Your task to perform on an android device: open app "Microsoft Outlook" (install if not already installed) Image 0: 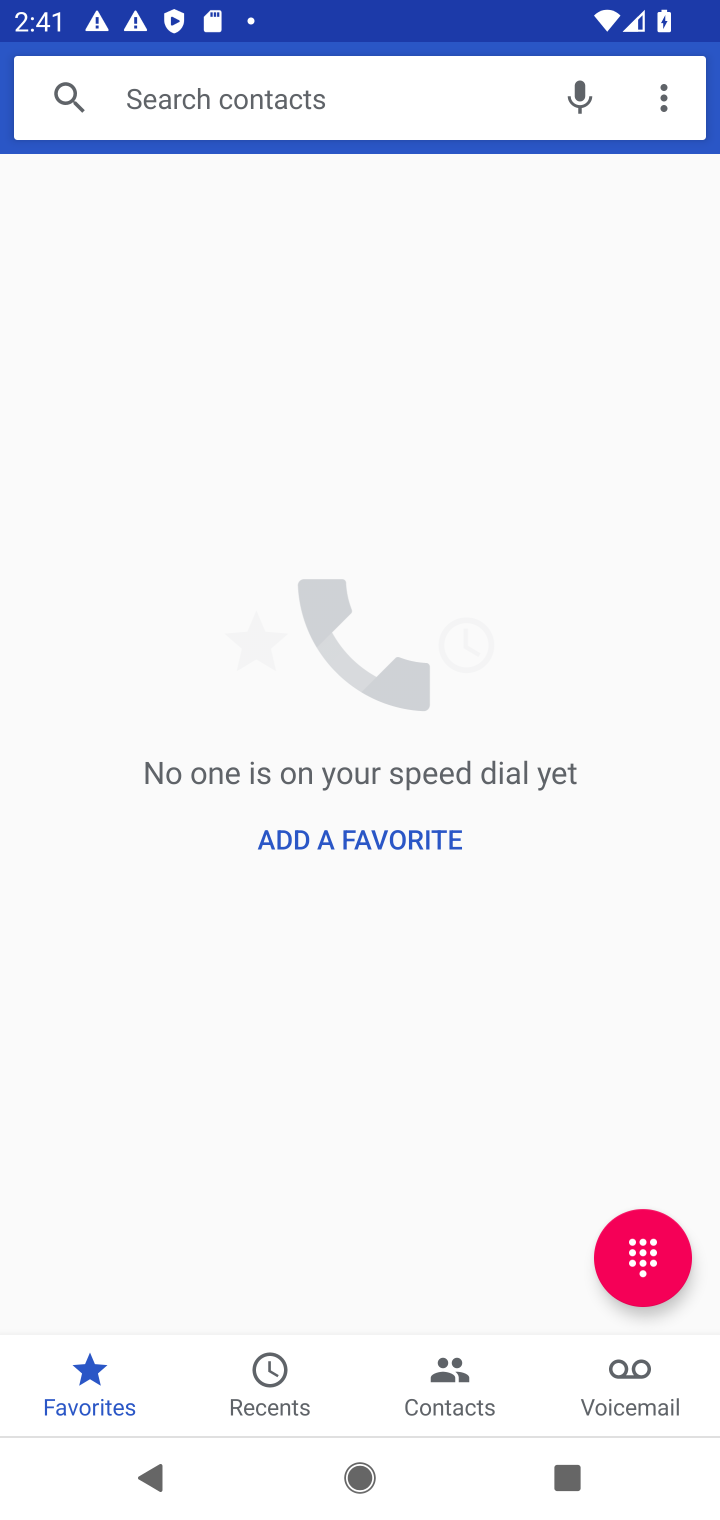
Step 0: press home button
Your task to perform on an android device: open app "Microsoft Outlook" (install if not already installed) Image 1: 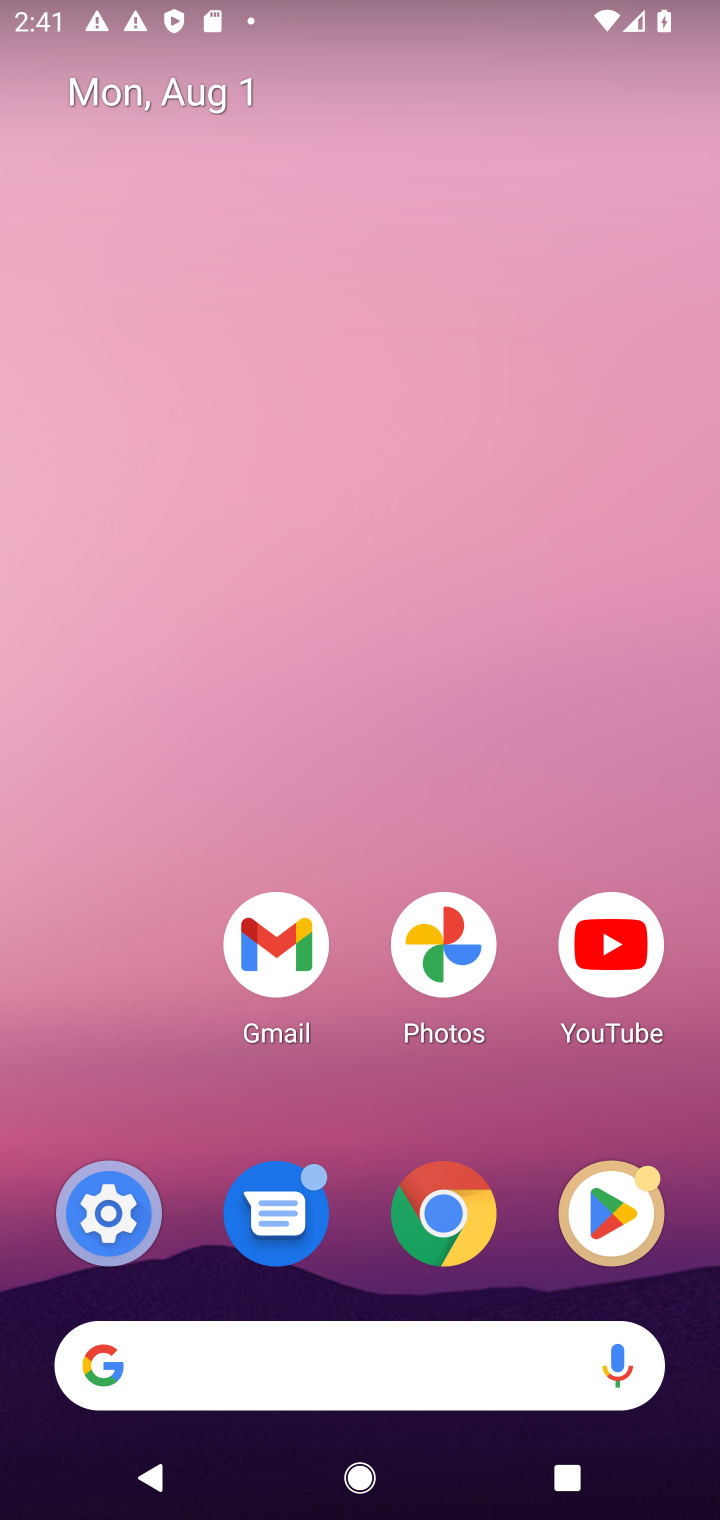
Step 1: drag from (536, 1015) to (605, 13)
Your task to perform on an android device: open app "Microsoft Outlook" (install if not already installed) Image 2: 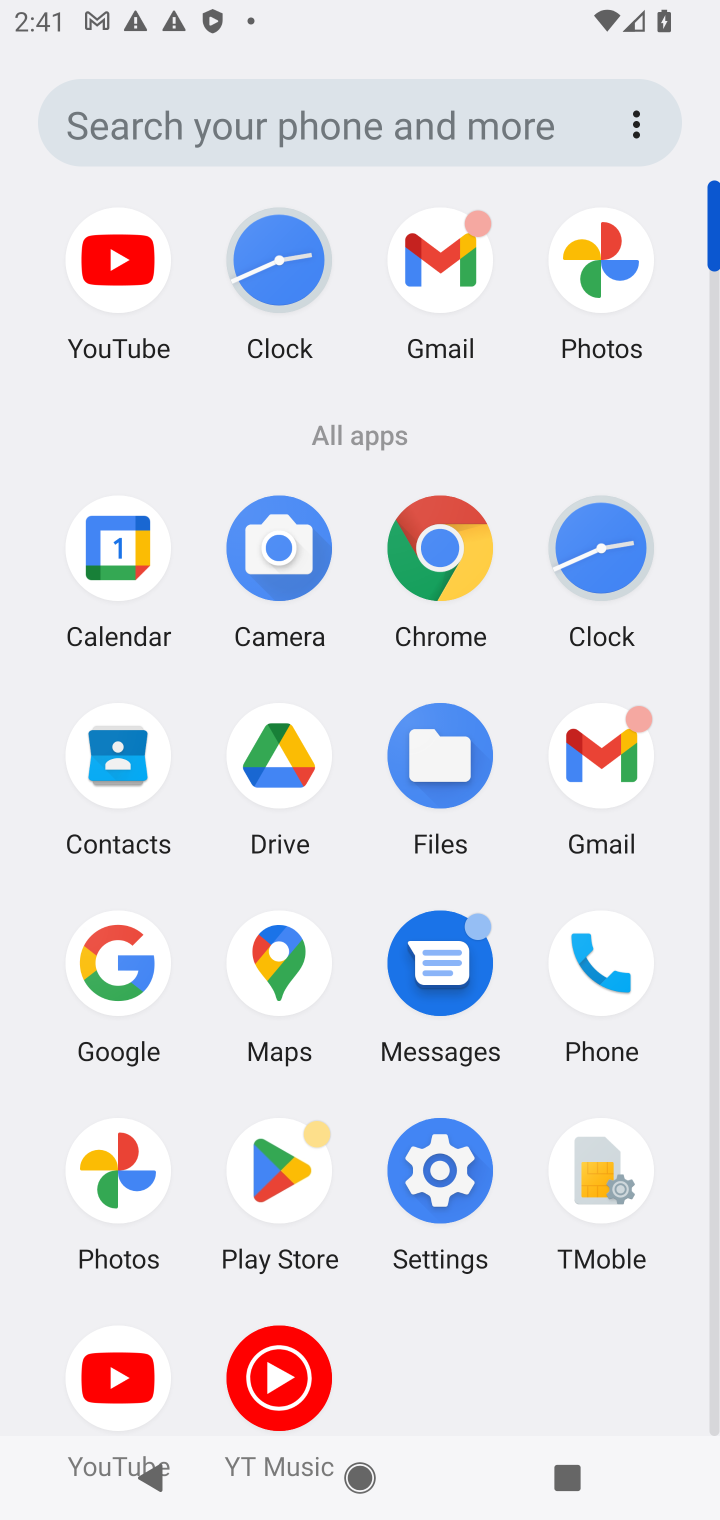
Step 2: click (299, 1149)
Your task to perform on an android device: open app "Microsoft Outlook" (install if not already installed) Image 3: 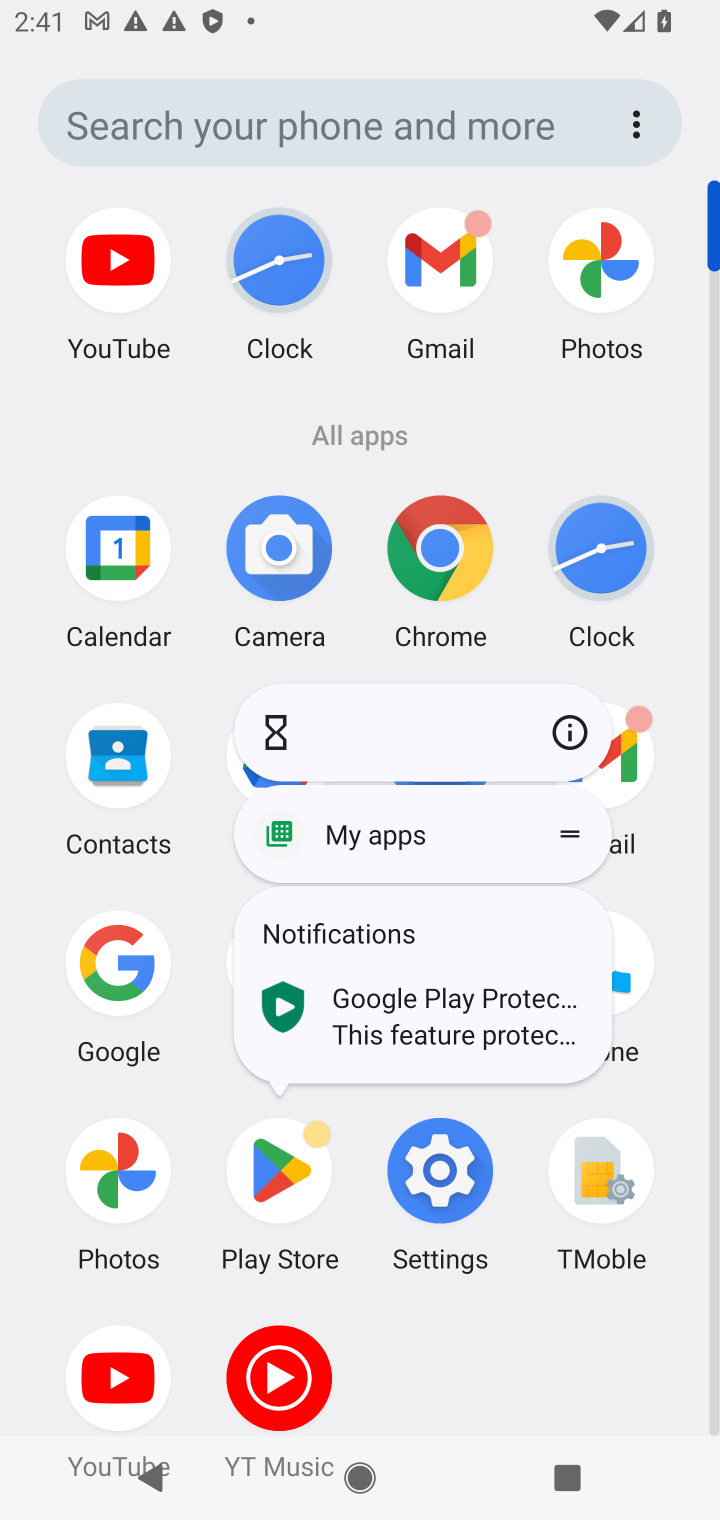
Step 3: click (283, 1155)
Your task to perform on an android device: open app "Microsoft Outlook" (install if not already installed) Image 4: 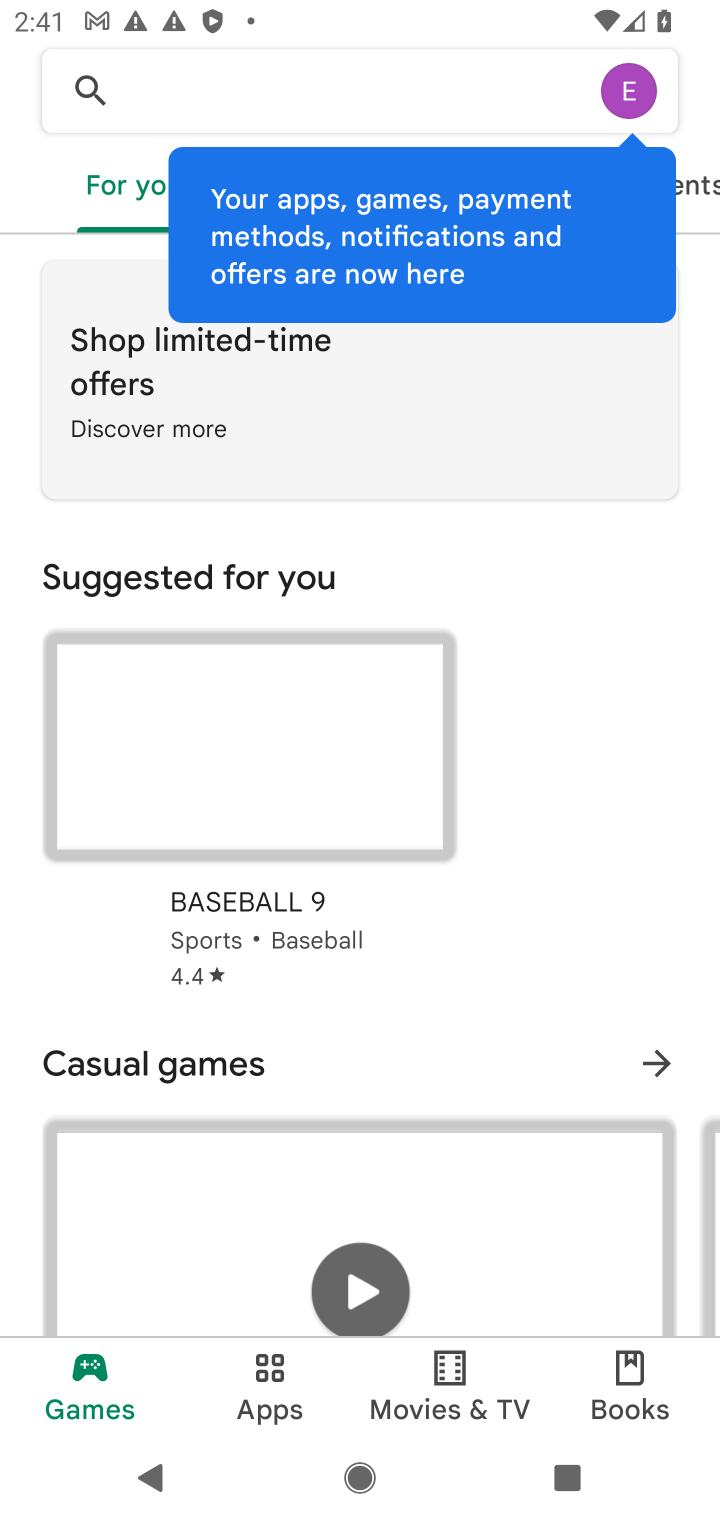
Step 4: click (459, 99)
Your task to perform on an android device: open app "Microsoft Outlook" (install if not already installed) Image 5: 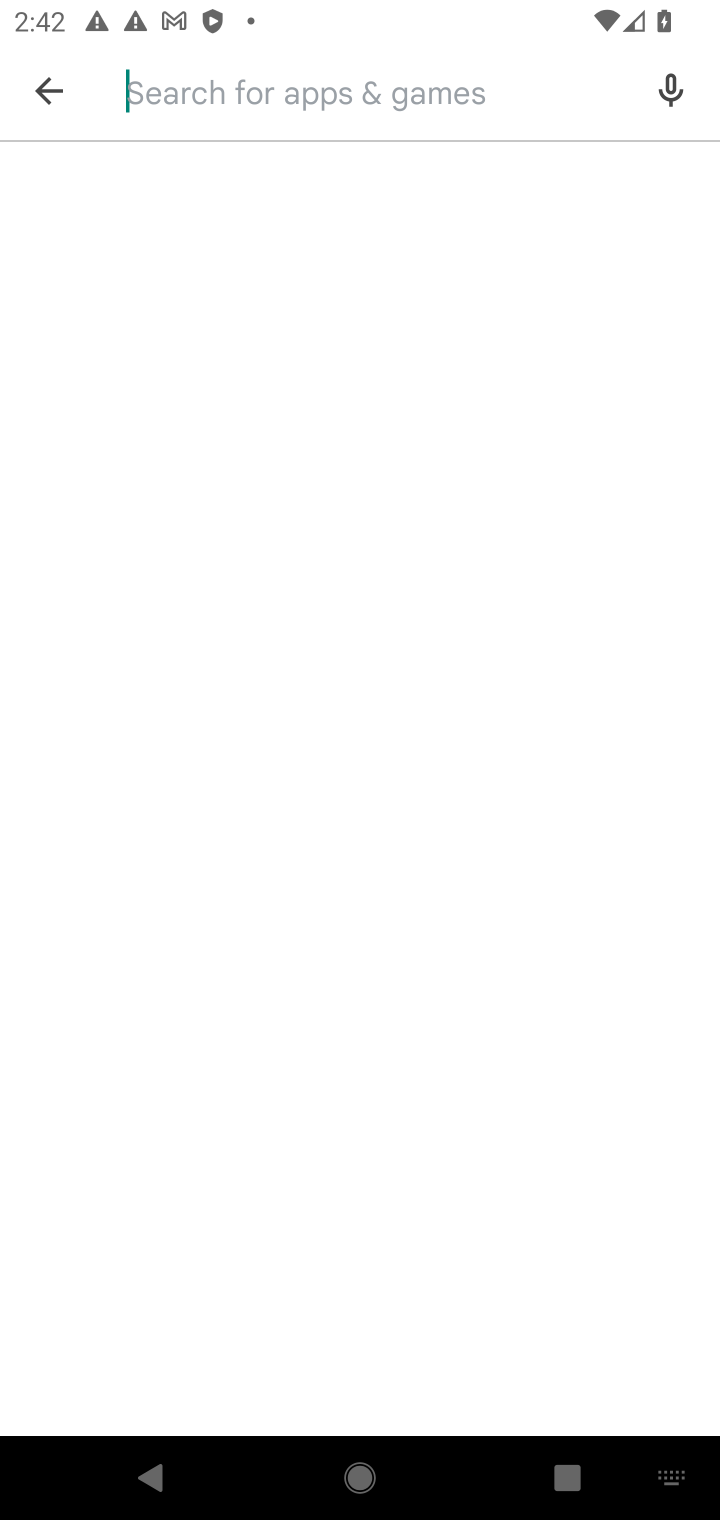
Step 5: type "Microsoft Outlook"
Your task to perform on an android device: open app "Microsoft Outlook" (install if not already installed) Image 6: 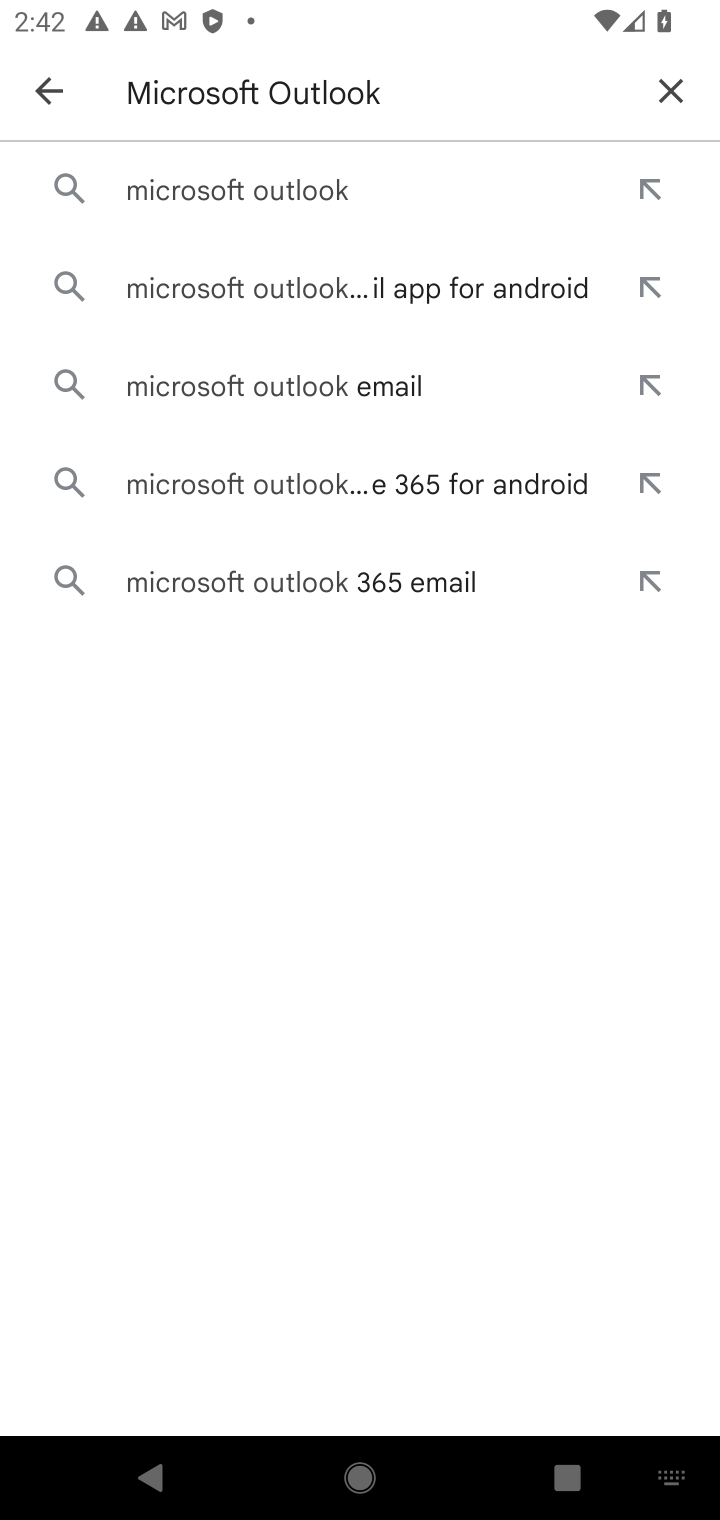
Step 6: press enter
Your task to perform on an android device: open app "Microsoft Outlook" (install if not already installed) Image 7: 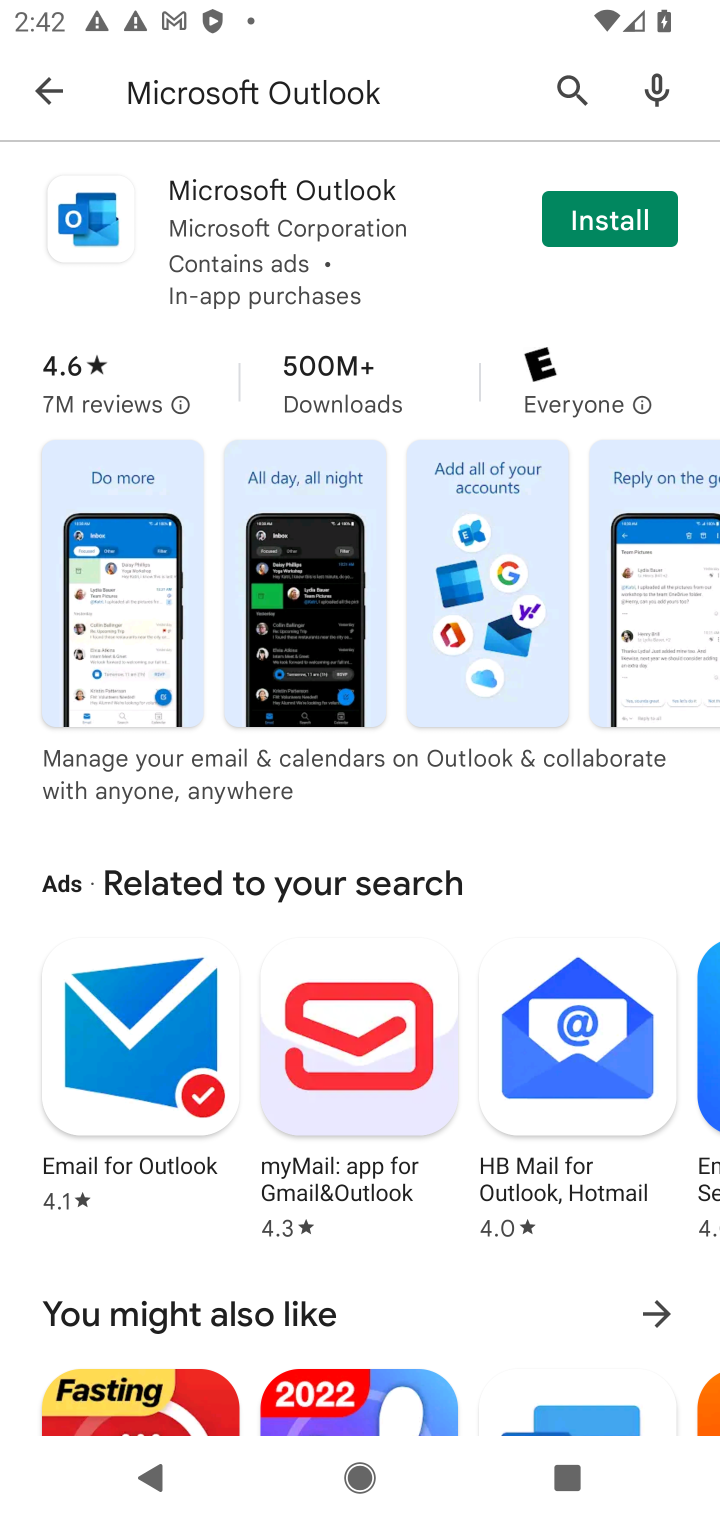
Step 7: click (652, 209)
Your task to perform on an android device: open app "Microsoft Outlook" (install if not already installed) Image 8: 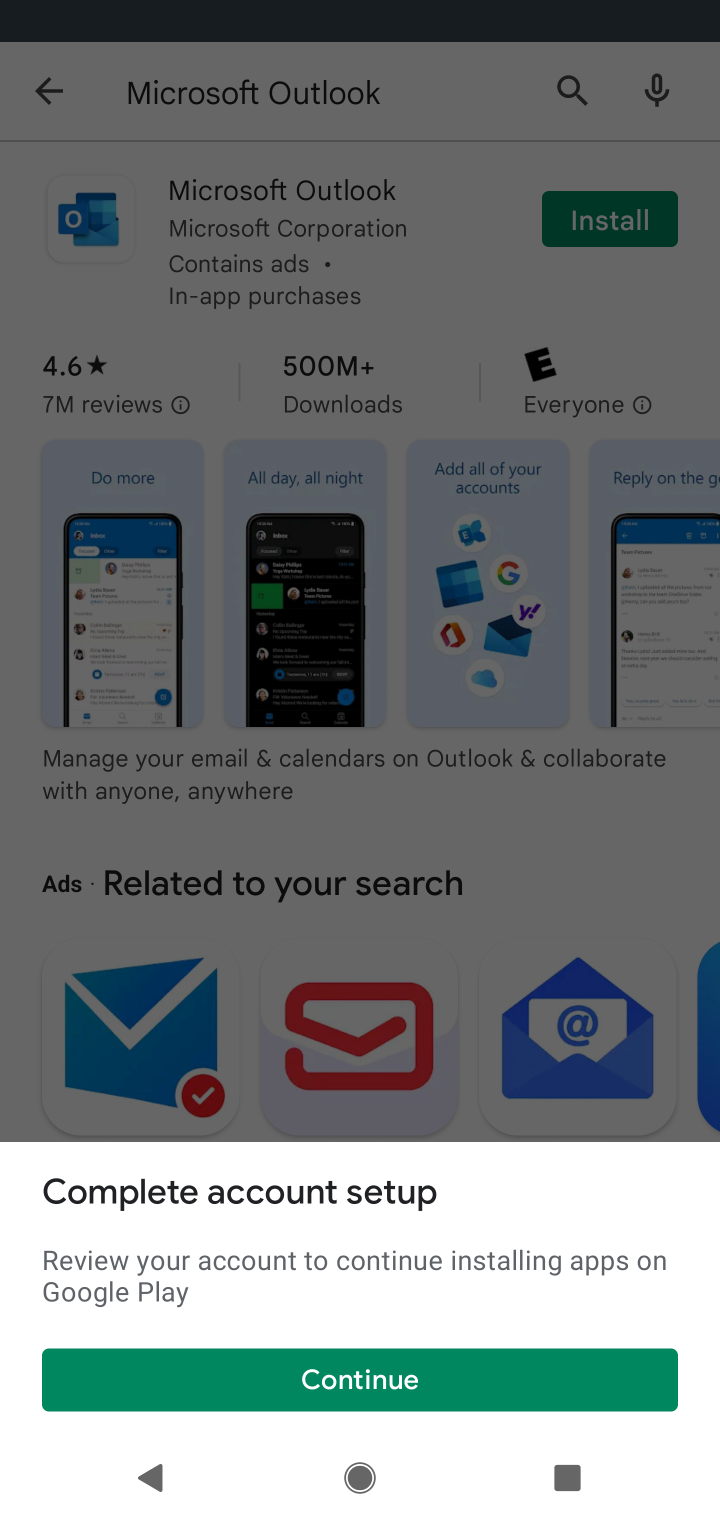
Step 8: click (612, 1367)
Your task to perform on an android device: open app "Microsoft Outlook" (install if not already installed) Image 9: 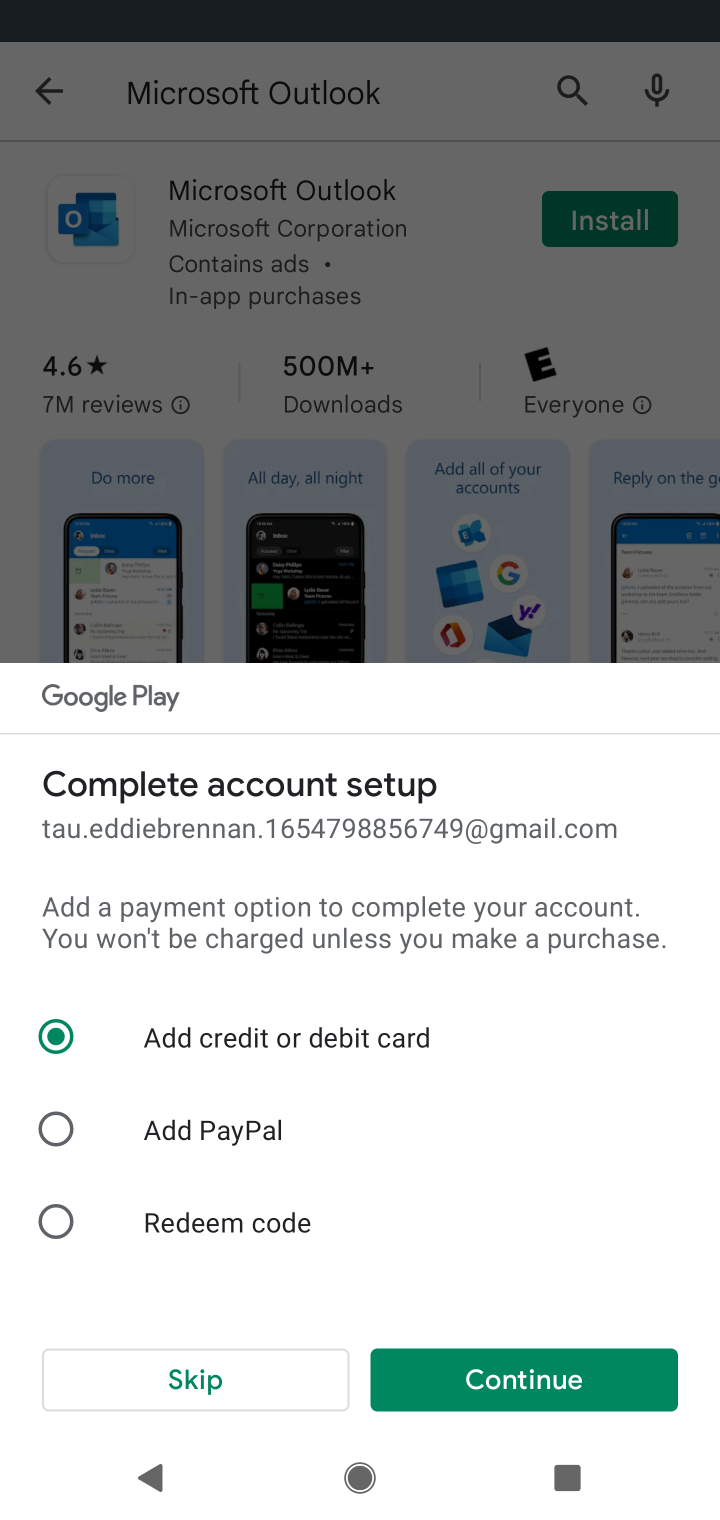
Step 9: click (194, 1361)
Your task to perform on an android device: open app "Microsoft Outlook" (install if not already installed) Image 10: 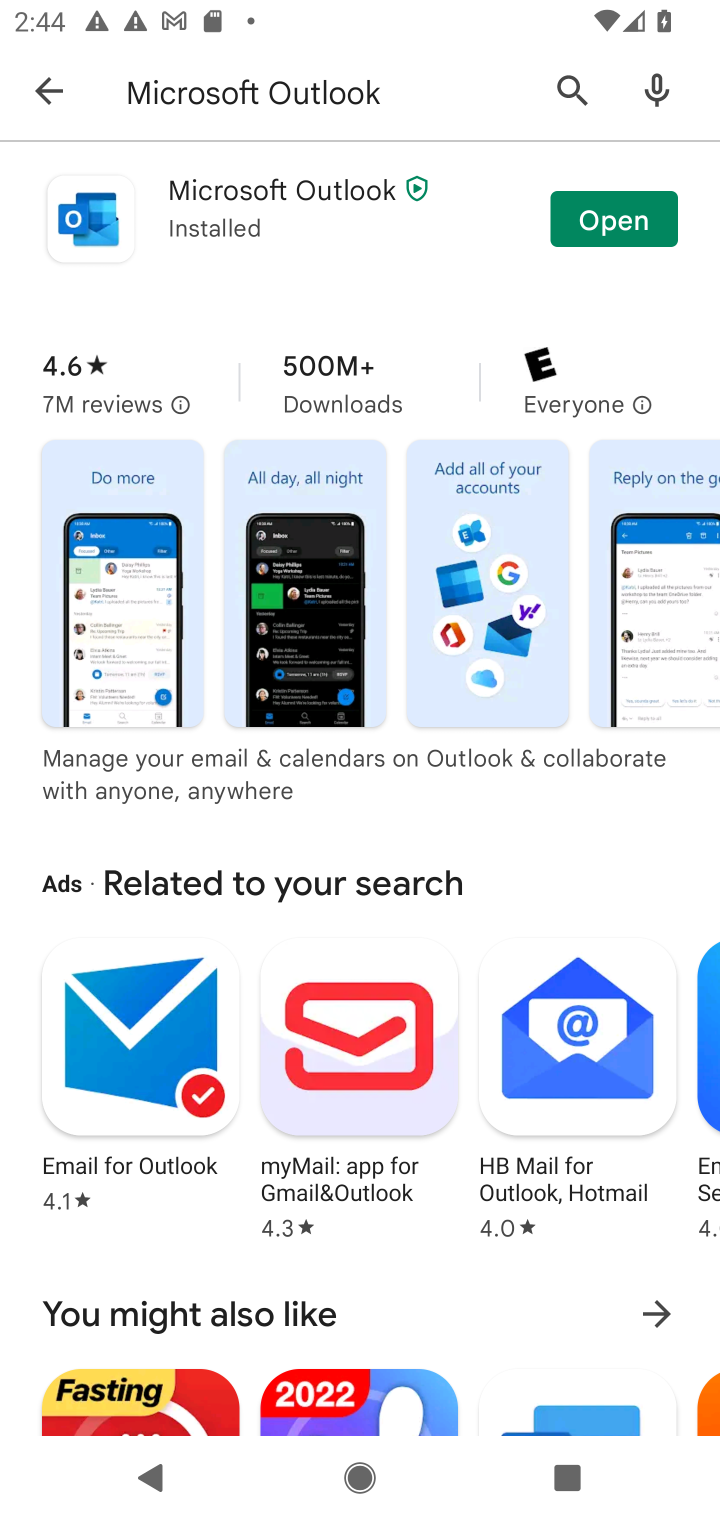
Step 10: click (583, 205)
Your task to perform on an android device: open app "Microsoft Outlook" (install if not already installed) Image 11: 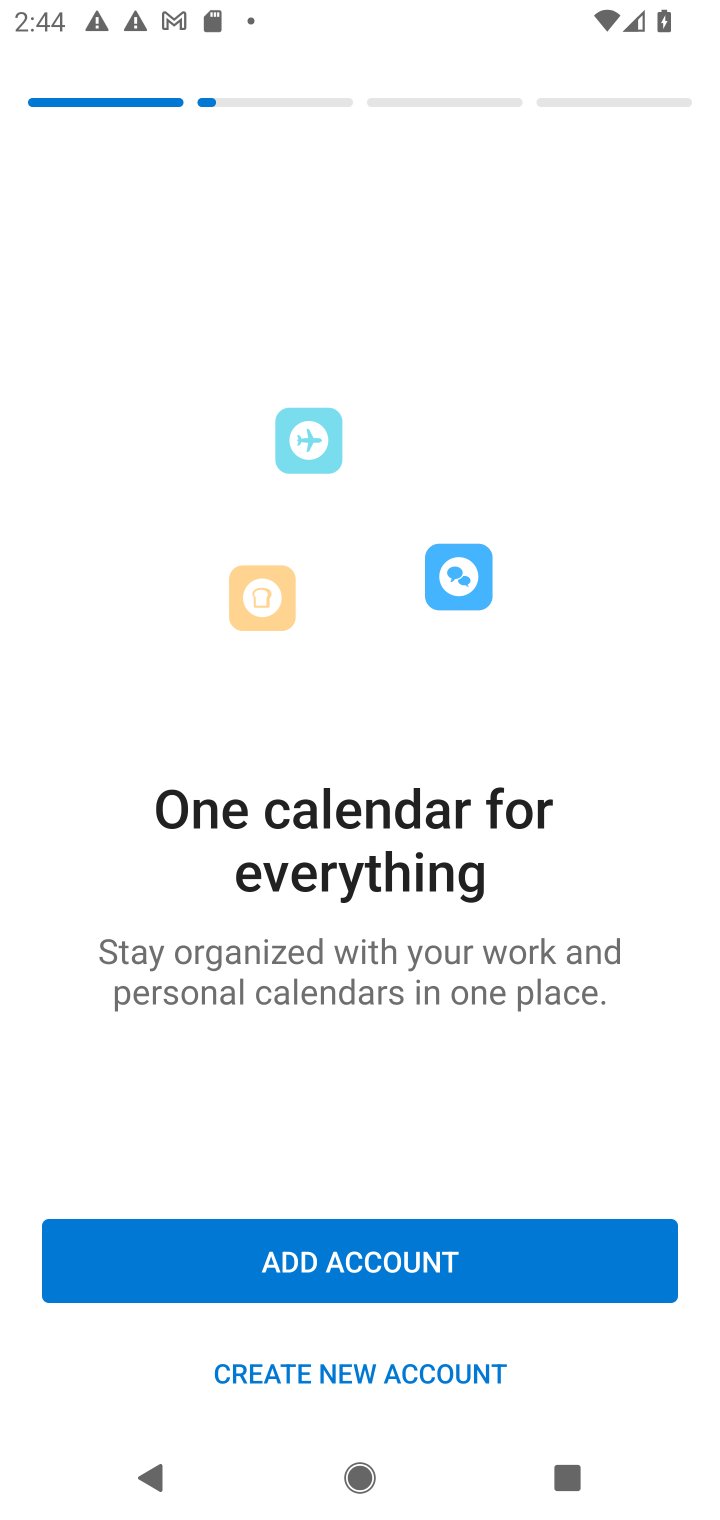
Step 11: task complete